Your task to perform on an android device: Search for Mexican restaurants on Maps Image 0: 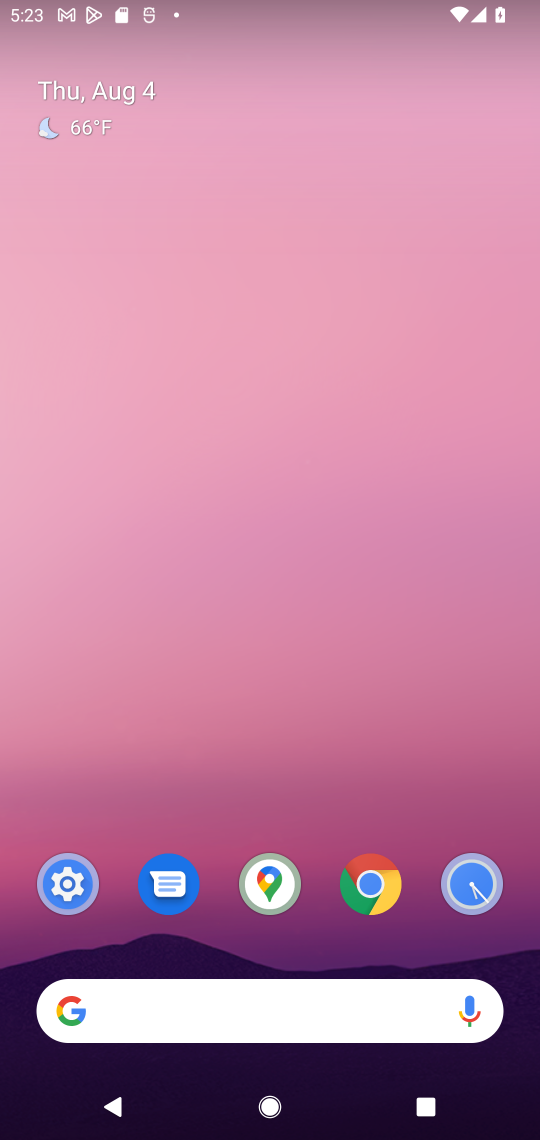
Step 0: click (285, 911)
Your task to perform on an android device: Search for Mexican restaurants on Maps Image 1: 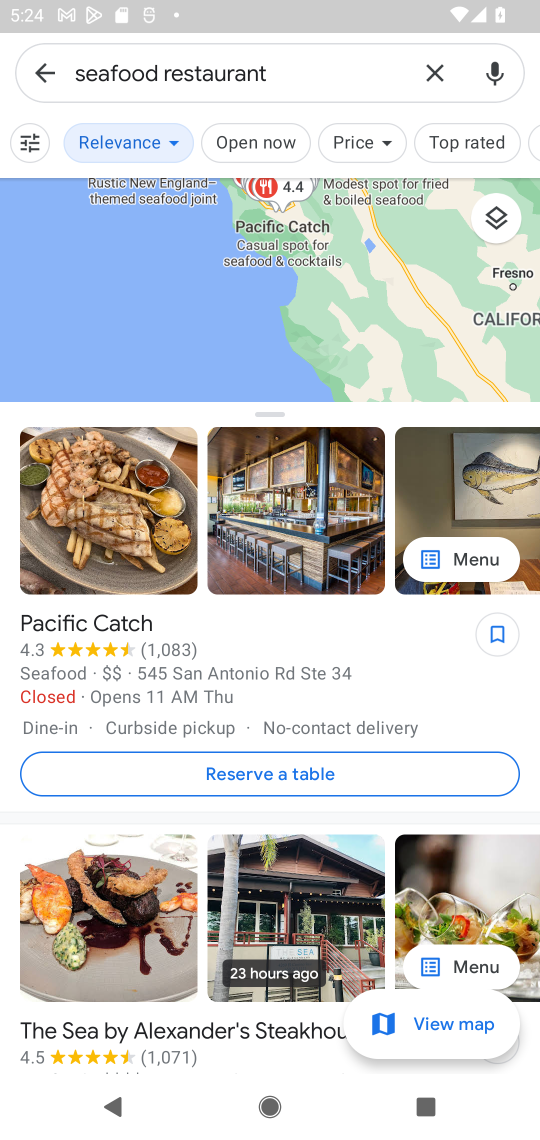
Step 1: click (450, 73)
Your task to perform on an android device: Search for Mexican restaurants on Maps Image 2: 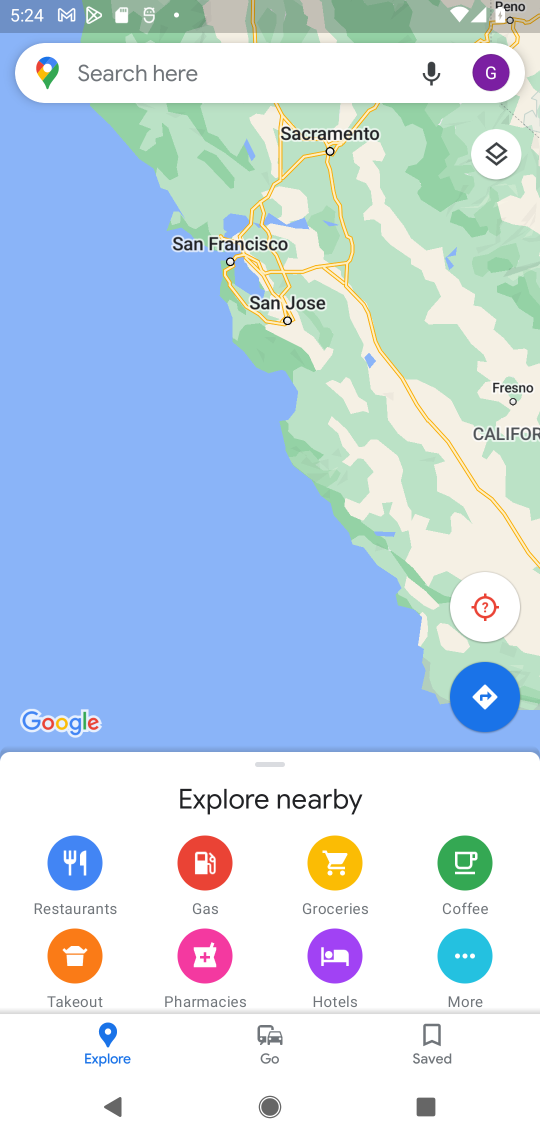
Step 2: click (250, 80)
Your task to perform on an android device: Search for Mexican restaurants on Maps Image 3: 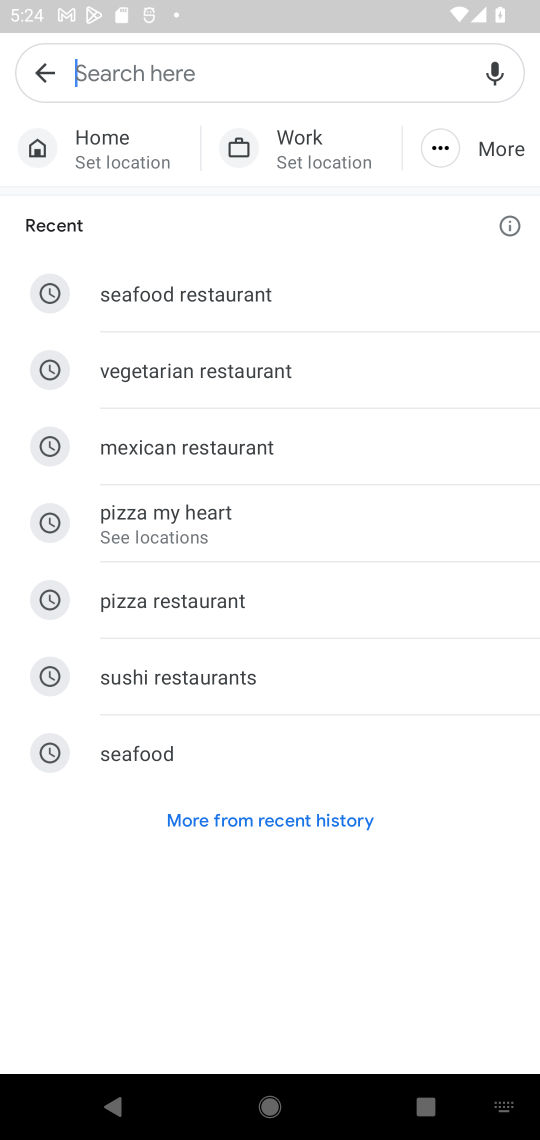
Step 3: click (262, 462)
Your task to perform on an android device: Search for Mexican restaurants on Maps Image 4: 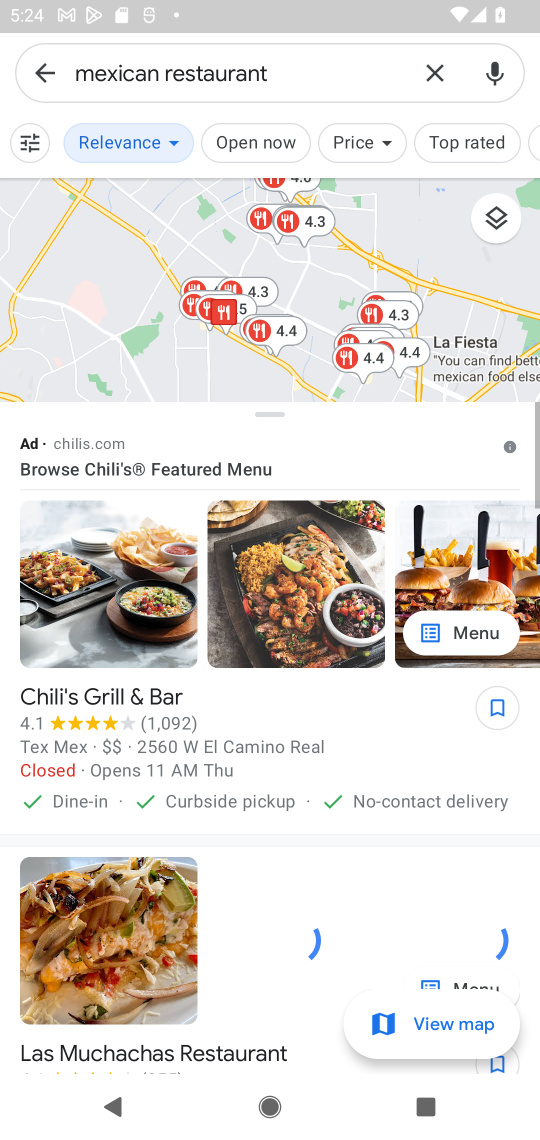
Step 4: task complete